Your task to perform on an android device: allow cookies in the chrome app Image 0: 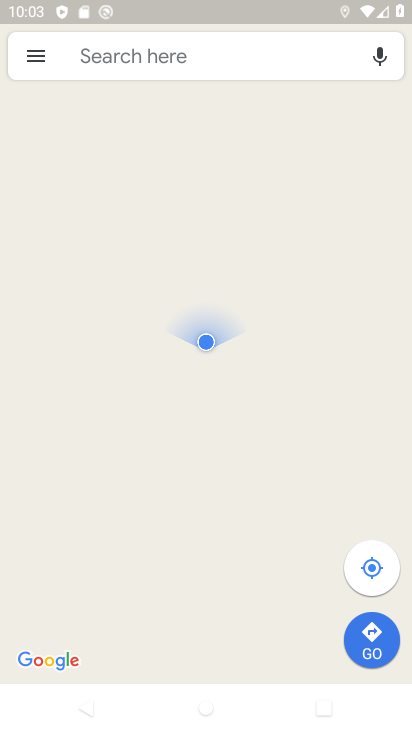
Step 0: press home button
Your task to perform on an android device: allow cookies in the chrome app Image 1: 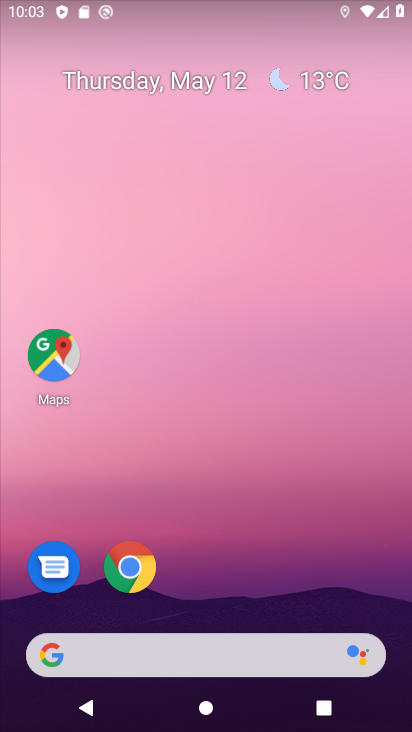
Step 1: click (131, 578)
Your task to perform on an android device: allow cookies in the chrome app Image 2: 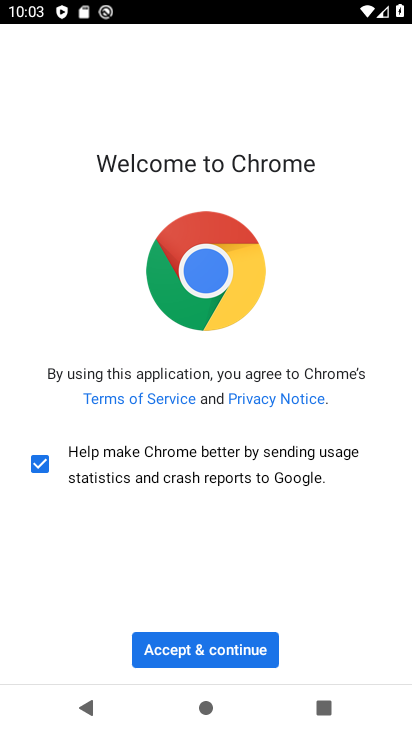
Step 2: click (229, 653)
Your task to perform on an android device: allow cookies in the chrome app Image 3: 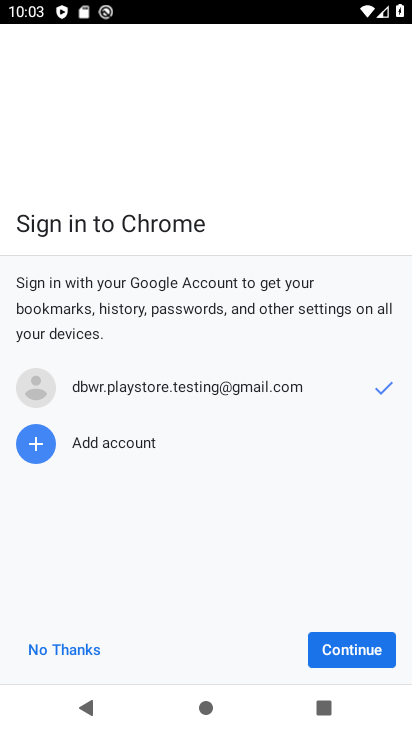
Step 3: click (329, 653)
Your task to perform on an android device: allow cookies in the chrome app Image 4: 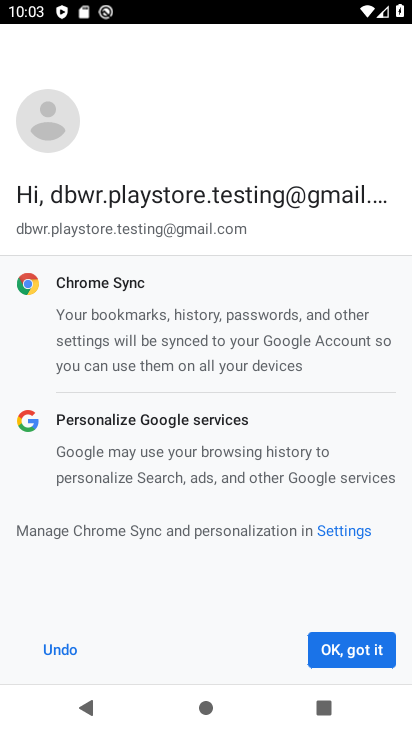
Step 4: click (330, 651)
Your task to perform on an android device: allow cookies in the chrome app Image 5: 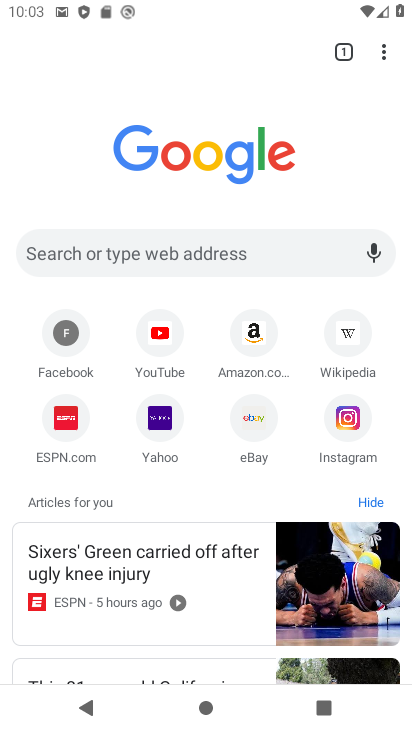
Step 5: drag from (380, 56) to (299, 438)
Your task to perform on an android device: allow cookies in the chrome app Image 6: 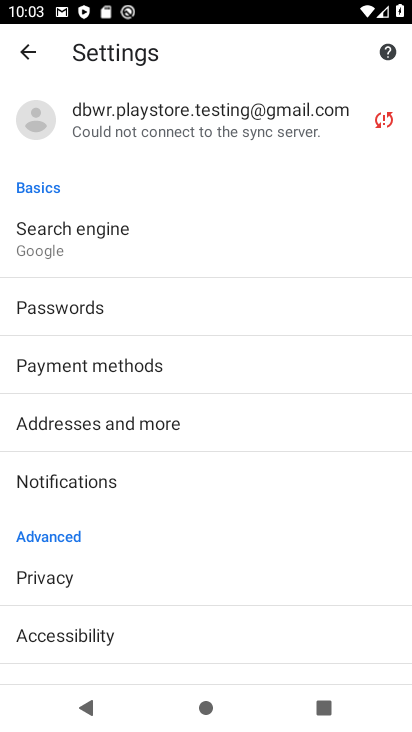
Step 6: drag from (146, 619) to (185, 243)
Your task to perform on an android device: allow cookies in the chrome app Image 7: 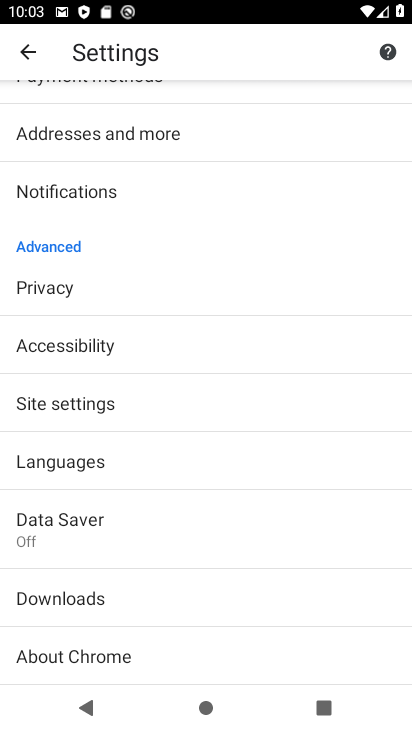
Step 7: click (106, 407)
Your task to perform on an android device: allow cookies in the chrome app Image 8: 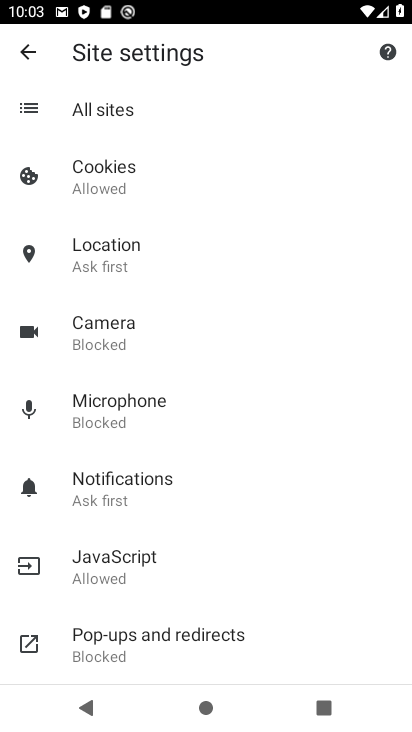
Step 8: click (151, 187)
Your task to perform on an android device: allow cookies in the chrome app Image 9: 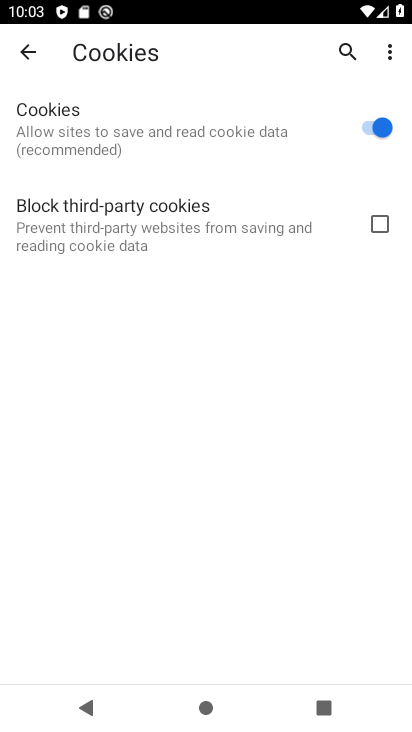
Step 9: task complete